Your task to perform on an android device: Open Wikipedia Image 0: 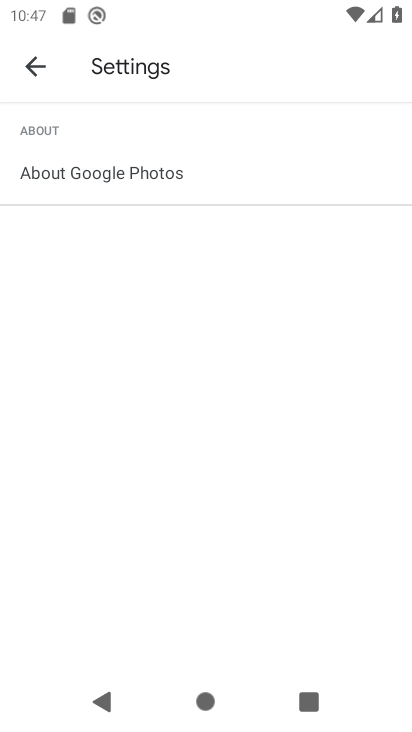
Step 0: press home button
Your task to perform on an android device: Open Wikipedia Image 1: 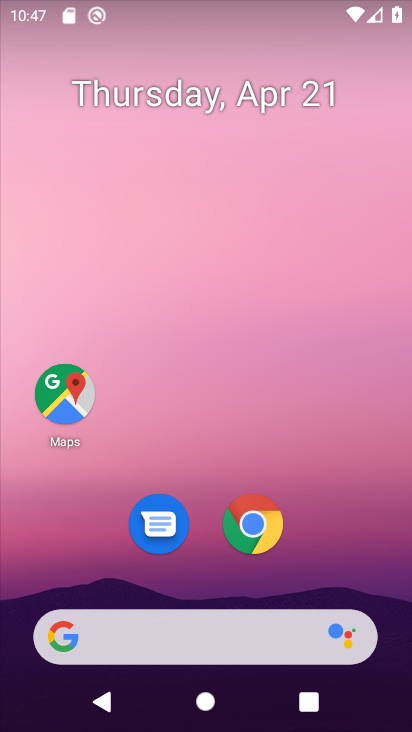
Step 1: click (250, 533)
Your task to perform on an android device: Open Wikipedia Image 2: 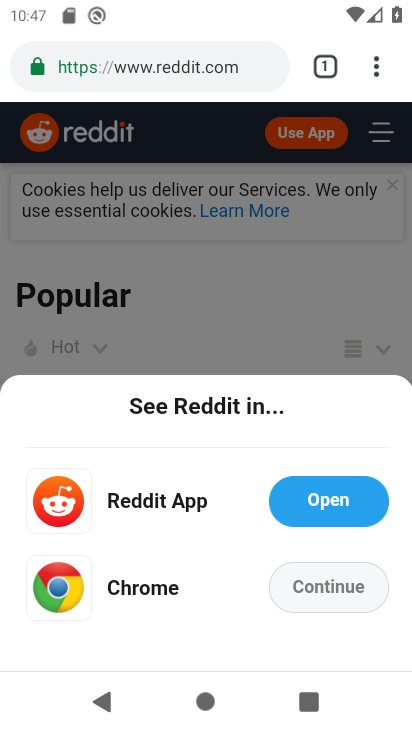
Step 2: task complete